Your task to perform on an android device: Open calendar and show me the first week of next month Image 0: 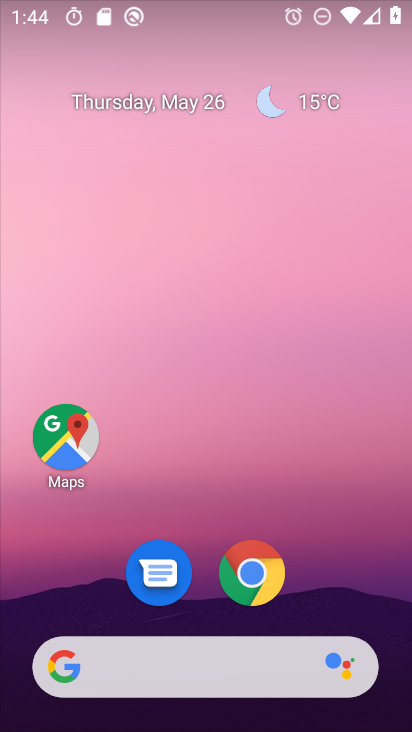
Step 0: drag from (340, 612) to (285, 12)
Your task to perform on an android device: Open calendar and show me the first week of next month Image 1: 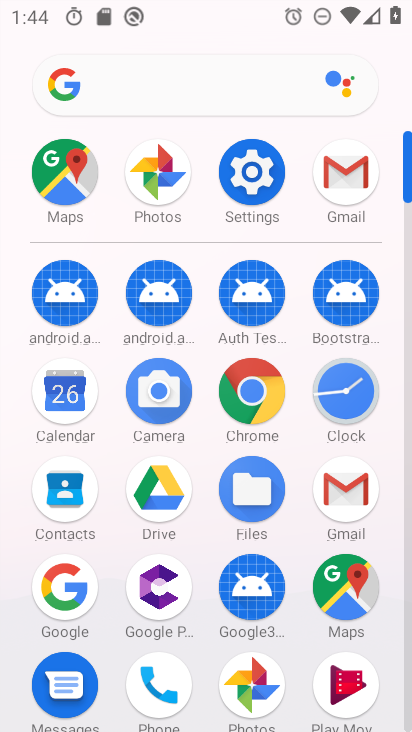
Step 1: click (59, 403)
Your task to perform on an android device: Open calendar and show me the first week of next month Image 2: 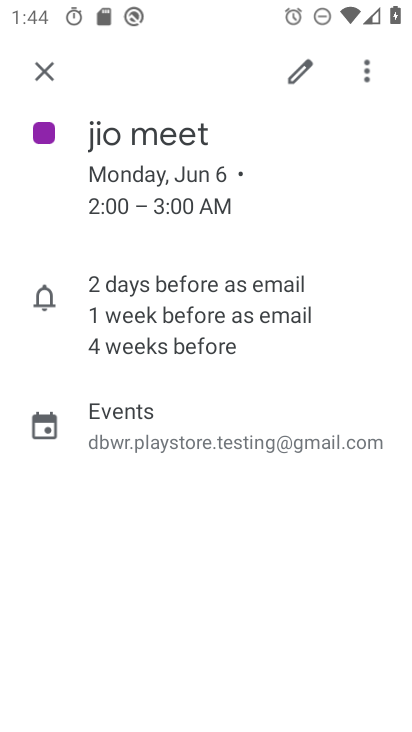
Step 2: click (45, 80)
Your task to perform on an android device: Open calendar and show me the first week of next month Image 3: 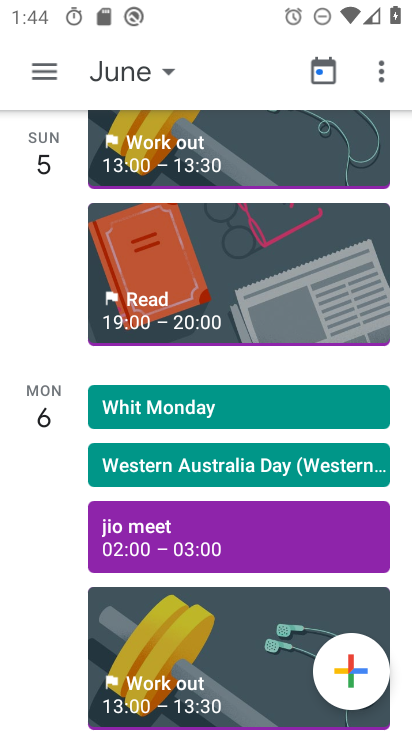
Step 3: click (48, 65)
Your task to perform on an android device: Open calendar and show me the first week of next month Image 4: 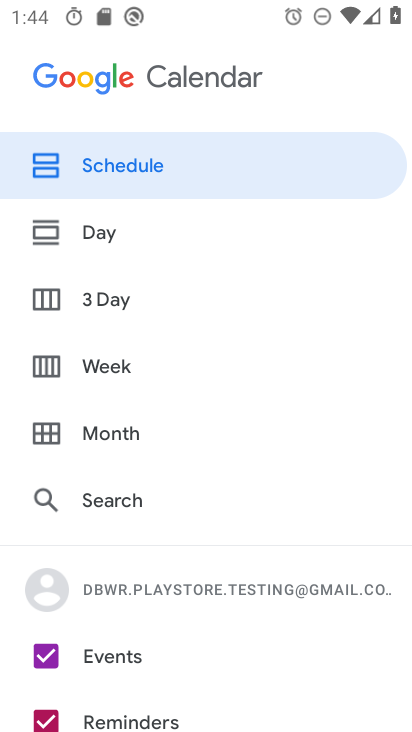
Step 4: click (90, 370)
Your task to perform on an android device: Open calendar and show me the first week of next month Image 5: 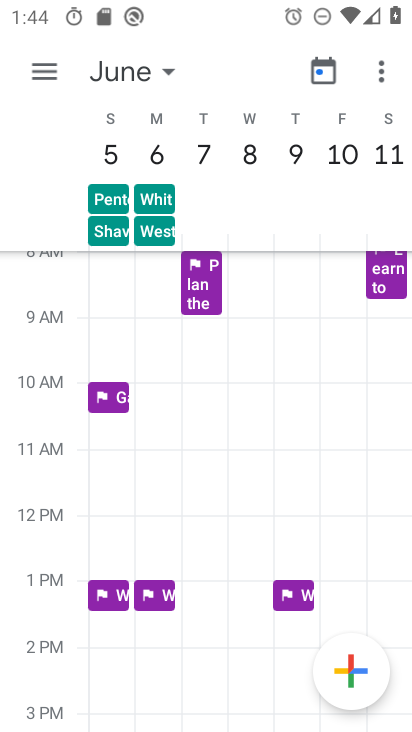
Step 5: drag from (167, 422) to (393, 397)
Your task to perform on an android device: Open calendar and show me the first week of next month Image 6: 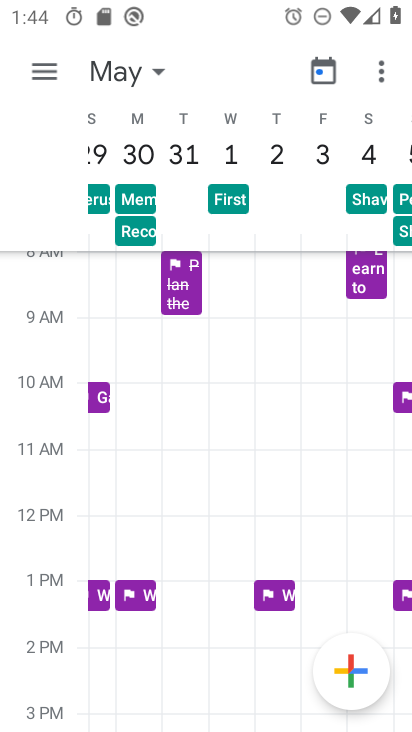
Step 6: drag from (204, 434) to (7, 456)
Your task to perform on an android device: Open calendar and show me the first week of next month Image 7: 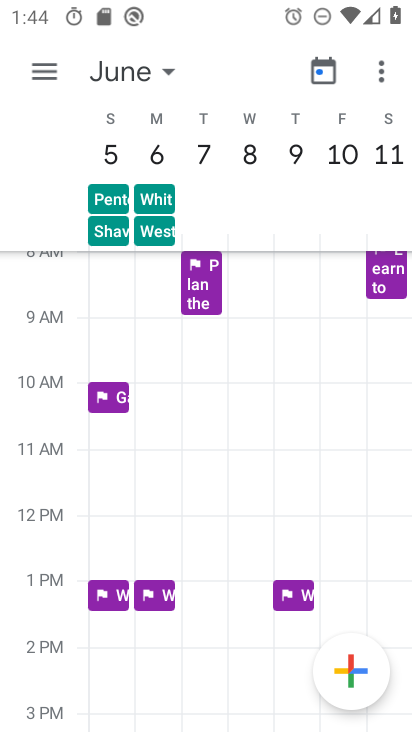
Step 7: drag from (149, 413) to (314, 417)
Your task to perform on an android device: Open calendar and show me the first week of next month Image 8: 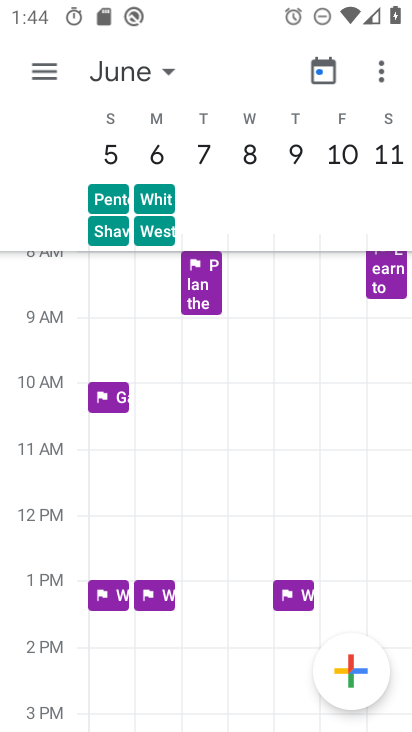
Step 8: drag from (217, 431) to (400, 502)
Your task to perform on an android device: Open calendar and show me the first week of next month Image 9: 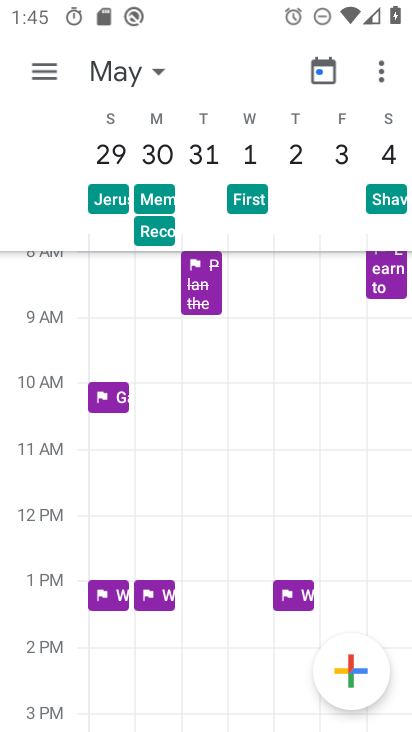
Step 9: click (245, 483)
Your task to perform on an android device: Open calendar and show me the first week of next month Image 10: 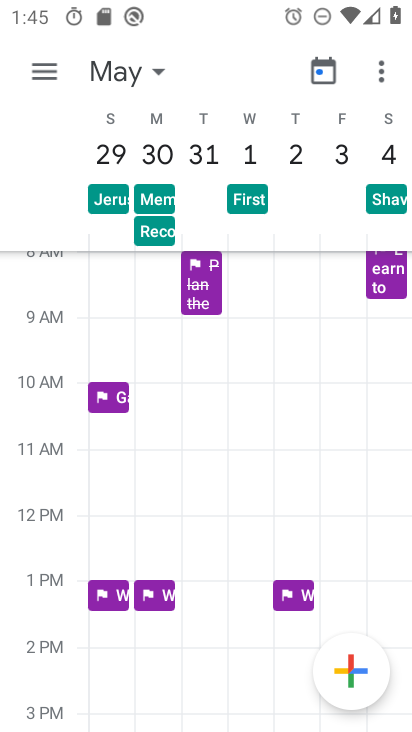
Step 10: task complete